Your task to perform on an android device: toggle wifi Image 0: 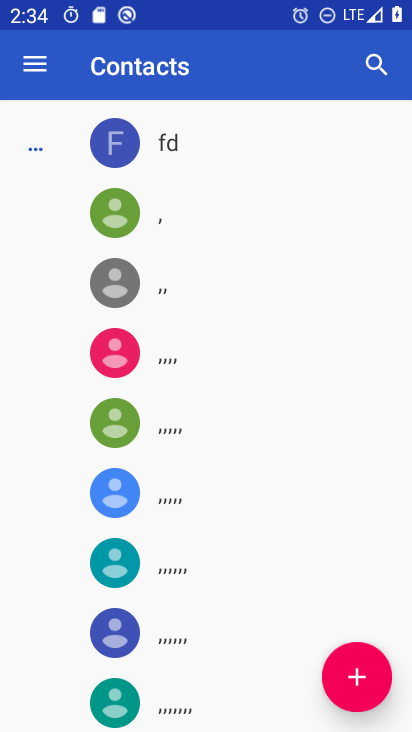
Step 0: press home button
Your task to perform on an android device: toggle wifi Image 1: 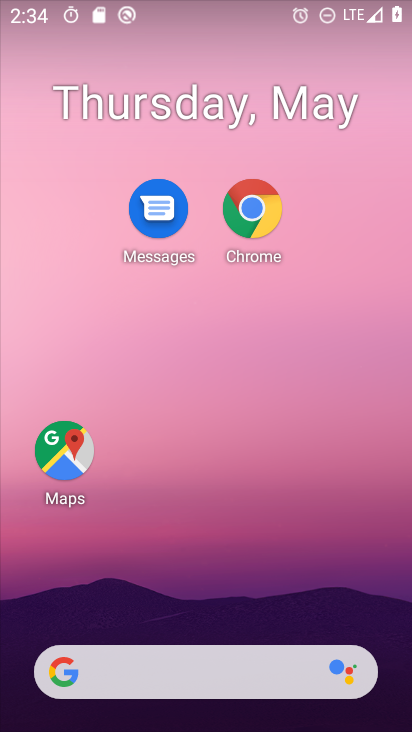
Step 1: drag from (185, 621) to (146, 5)
Your task to perform on an android device: toggle wifi Image 2: 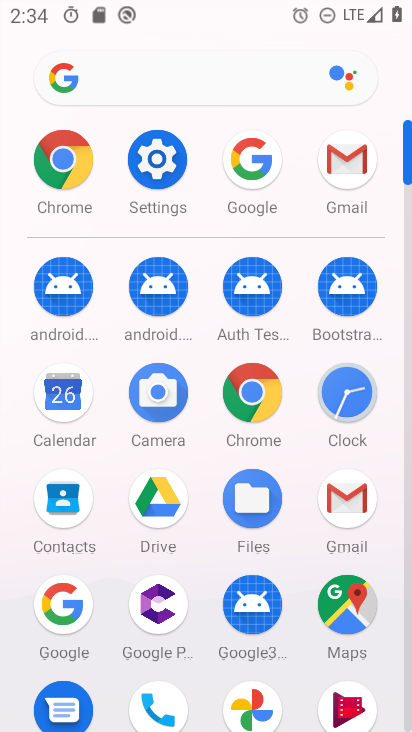
Step 2: click (159, 174)
Your task to perform on an android device: toggle wifi Image 3: 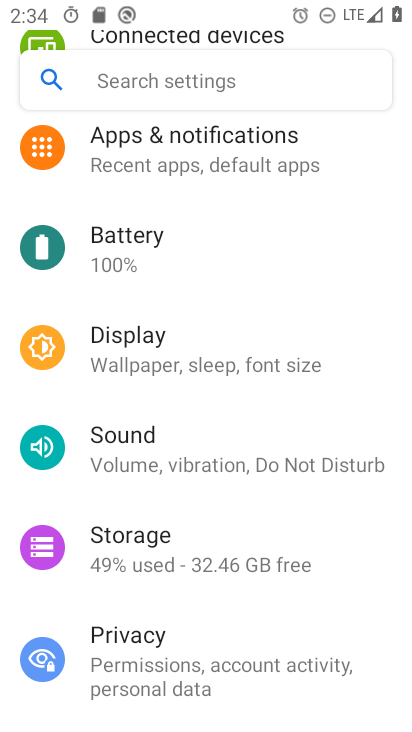
Step 3: drag from (243, 174) to (217, 455)
Your task to perform on an android device: toggle wifi Image 4: 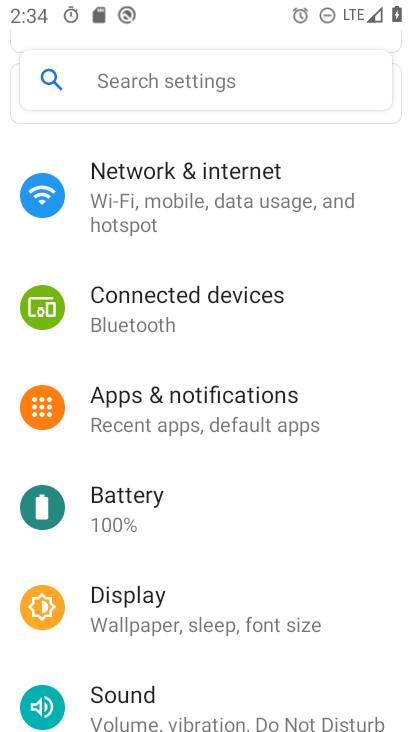
Step 4: drag from (210, 260) to (161, 663)
Your task to perform on an android device: toggle wifi Image 5: 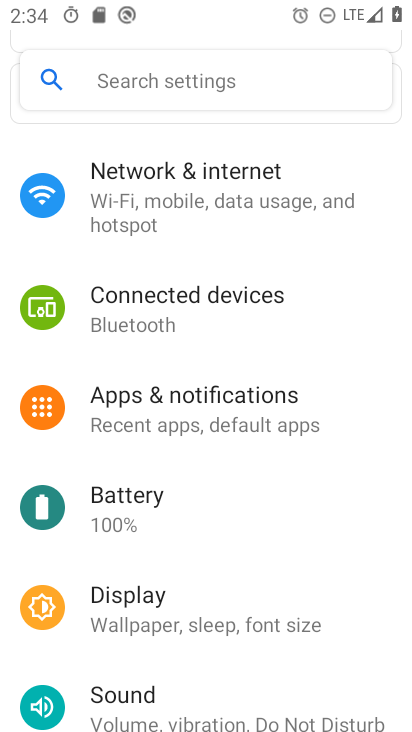
Step 5: click (183, 192)
Your task to perform on an android device: toggle wifi Image 6: 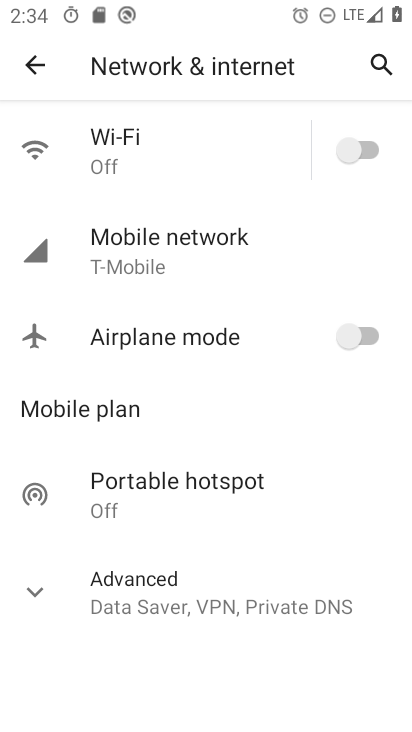
Step 6: click (373, 154)
Your task to perform on an android device: toggle wifi Image 7: 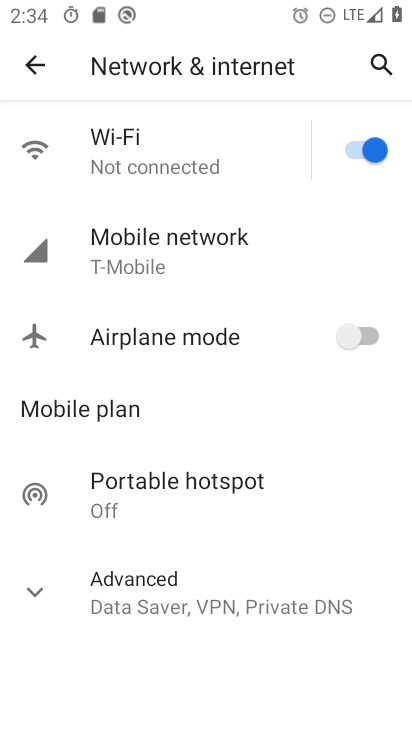
Step 7: task complete